Your task to perform on an android device: toggle location history Image 0: 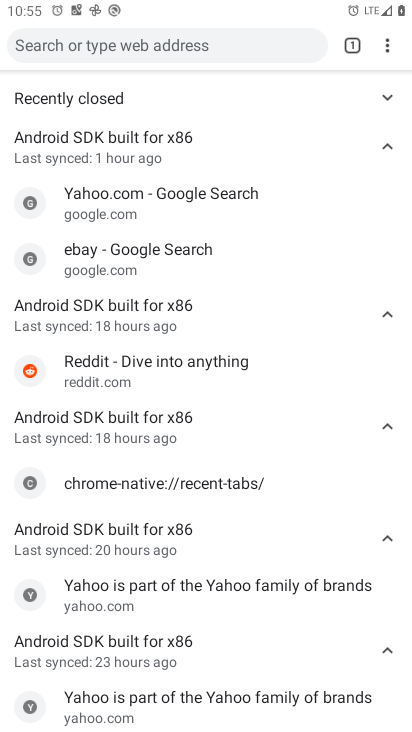
Step 0: press home button
Your task to perform on an android device: toggle location history Image 1: 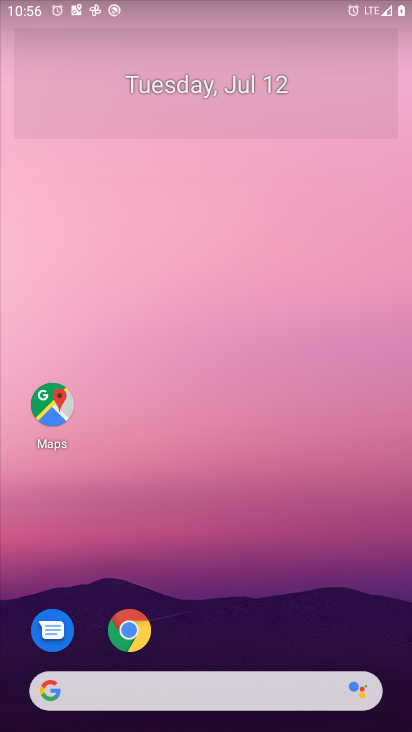
Step 1: drag from (248, 610) to (256, 66)
Your task to perform on an android device: toggle location history Image 2: 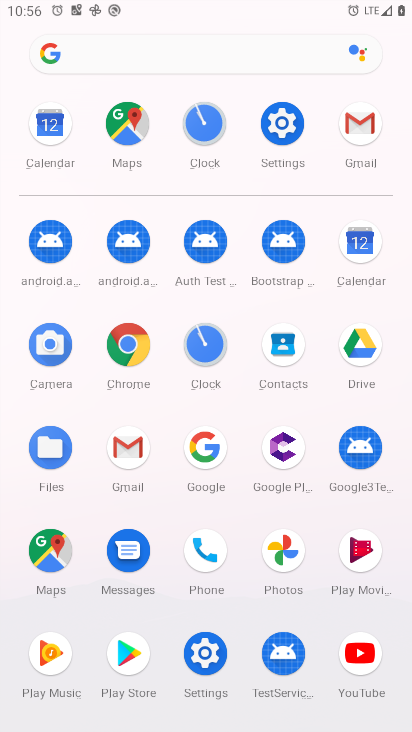
Step 2: click (274, 124)
Your task to perform on an android device: toggle location history Image 3: 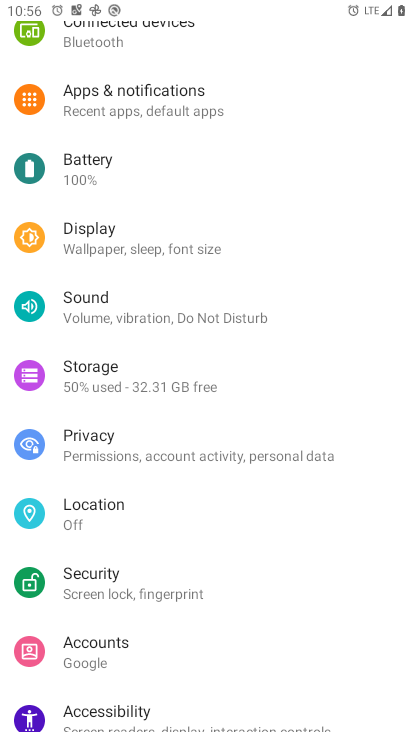
Step 3: click (84, 522)
Your task to perform on an android device: toggle location history Image 4: 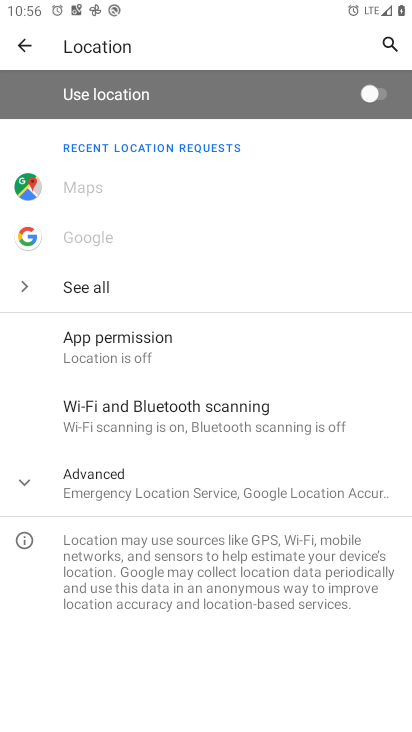
Step 4: click (20, 476)
Your task to perform on an android device: toggle location history Image 5: 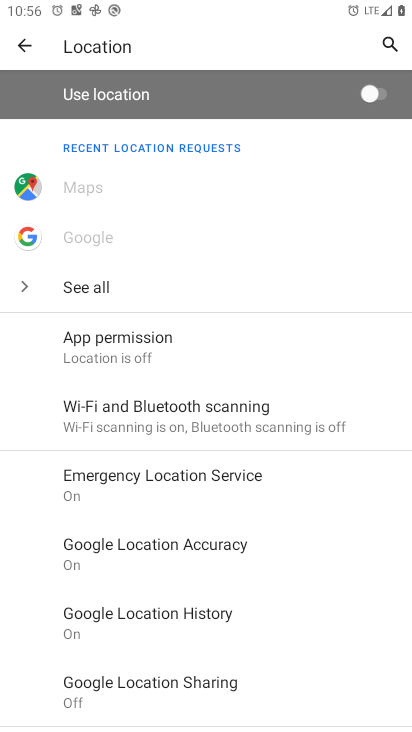
Step 5: click (204, 622)
Your task to perform on an android device: toggle location history Image 6: 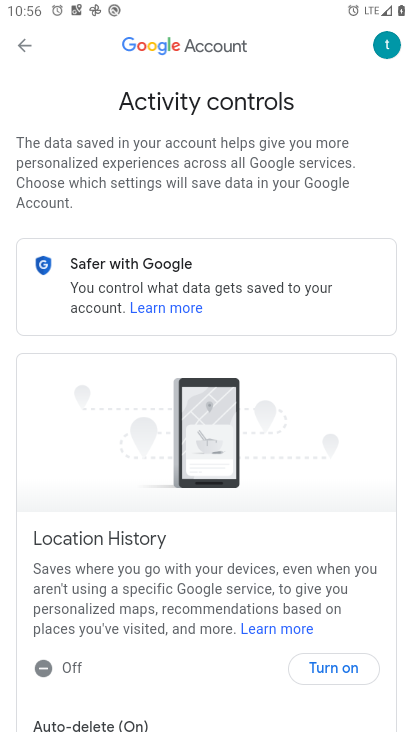
Step 6: click (343, 665)
Your task to perform on an android device: toggle location history Image 7: 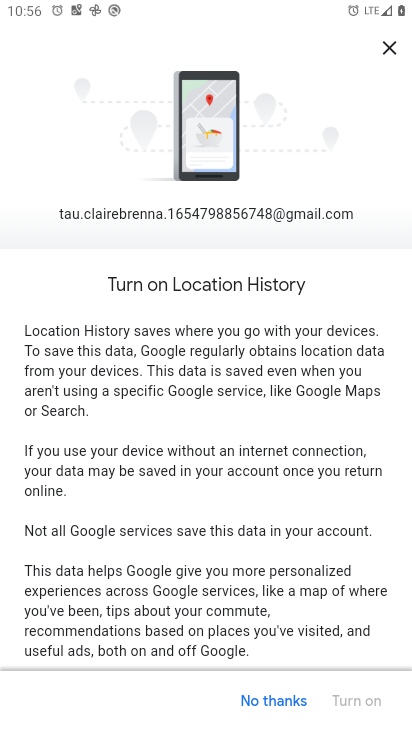
Step 7: click (364, 701)
Your task to perform on an android device: toggle location history Image 8: 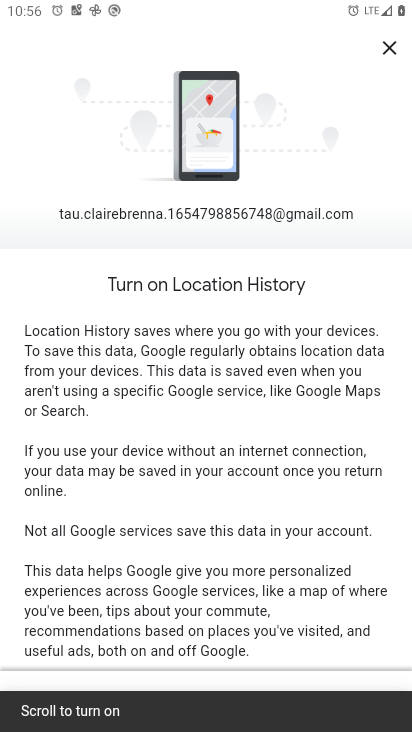
Step 8: drag from (387, 648) to (387, 472)
Your task to perform on an android device: toggle location history Image 9: 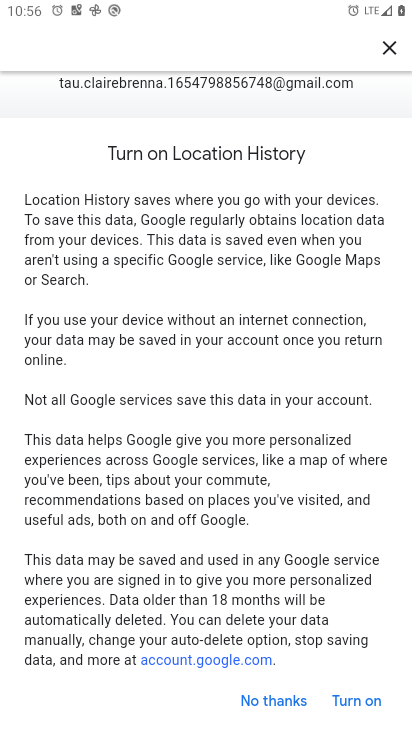
Step 9: click (341, 702)
Your task to perform on an android device: toggle location history Image 10: 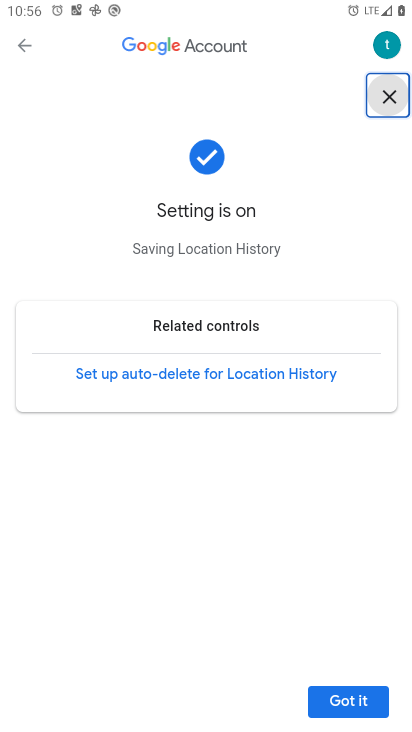
Step 10: click (346, 703)
Your task to perform on an android device: toggle location history Image 11: 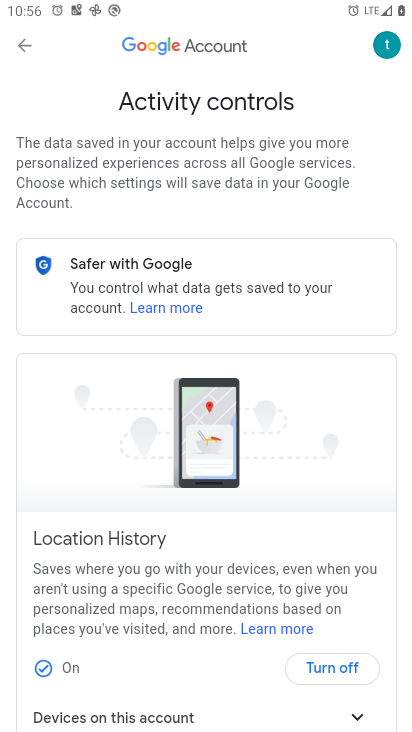
Step 11: task complete